Your task to perform on an android device: turn on improve location accuracy Image 0: 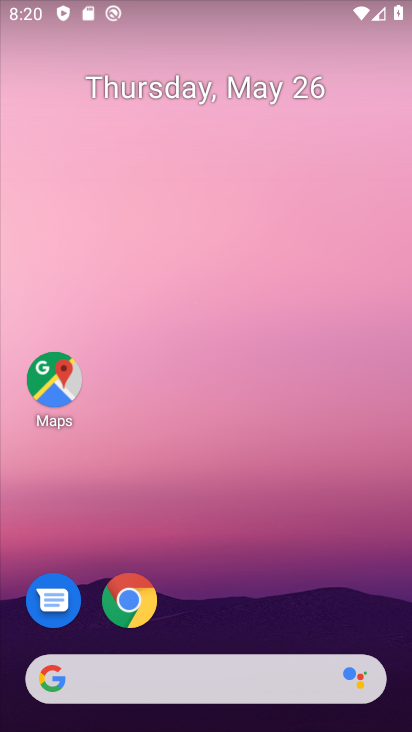
Step 0: drag from (220, 633) to (249, 268)
Your task to perform on an android device: turn on improve location accuracy Image 1: 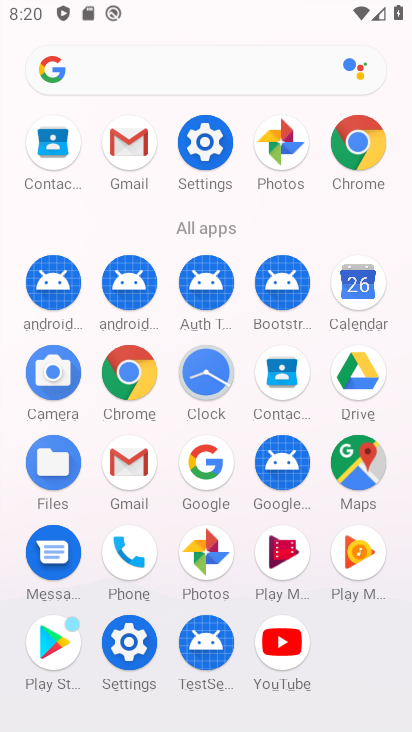
Step 1: click (225, 135)
Your task to perform on an android device: turn on improve location accuracy Image 2: 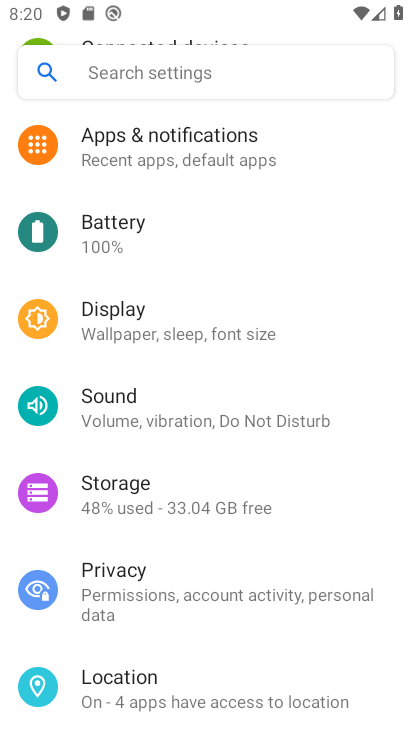
Step 2: click (123, 701)
Your task to perform on an android device: turn on improve location accuracy Image 3: 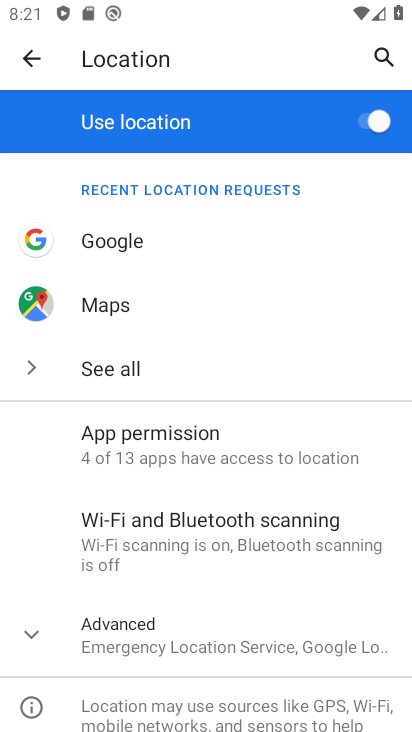
Step 3: click (134, 640)
Your task to perform on an android device: turn on improve location accuracy Image 4: 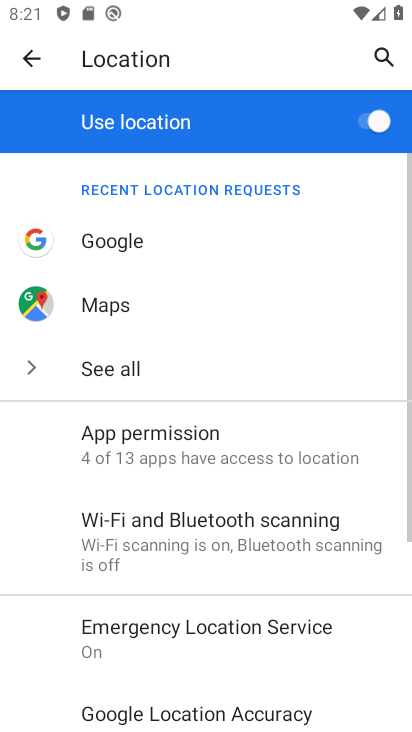
Step 4: drag from (134, 640) to (161, 272)
Your task to perform on an android device: turn on improve location accuracy Image 5: 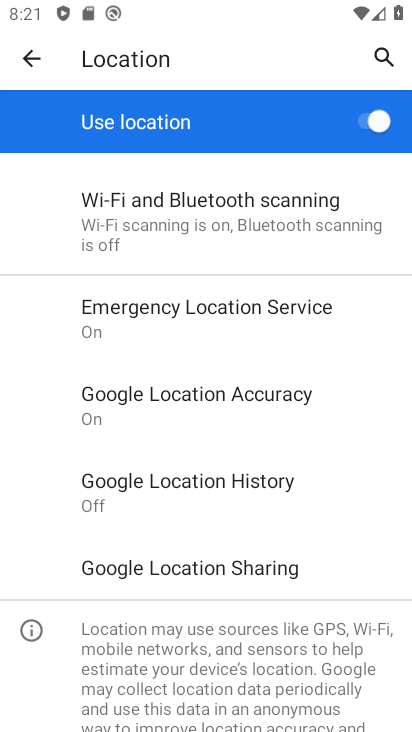
Step 5: click (227, 389)
Your task to perform on an android device: turn on improve location accuracy Image 6: 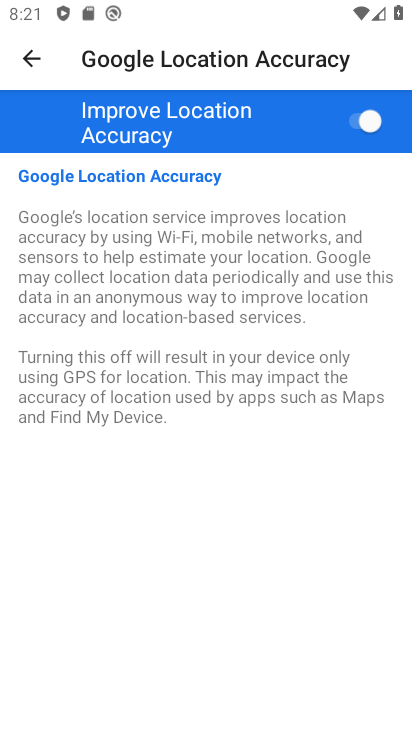
Step 6: task complete